Your task to perform on an android device: Check the news Image 0: 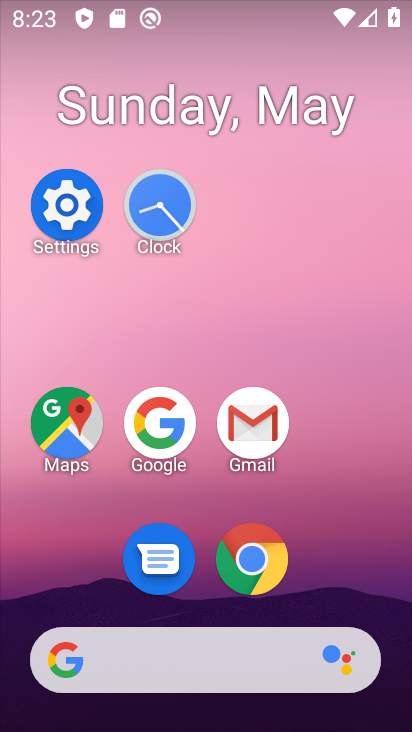
Step 0: click (158, 421)
Your task to perform on an android device: Check the news Image 1: 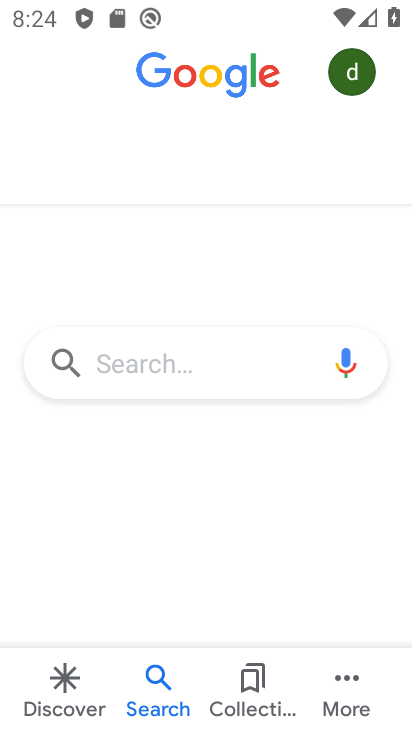
Step 1: click (195, 355)
Your task to perform on an android device: Check the news Image 2: 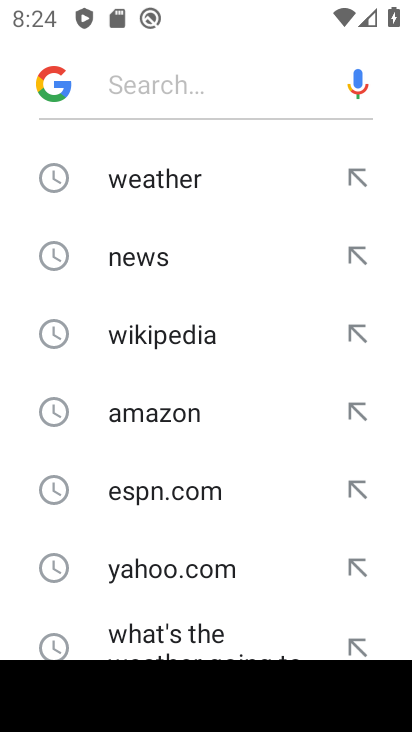
Step 2: click (130, 261)
Your task to perform on an android device: Check the news Image 3: 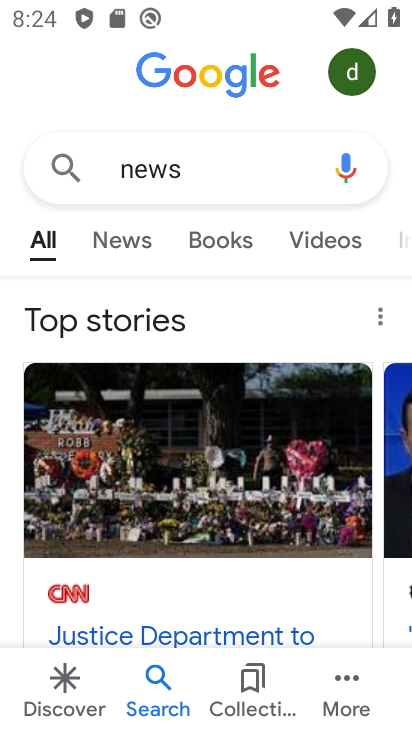
Step 3: task complete